Your task to perform on an android device: Open calendar and show me the third week of next month Image 0: 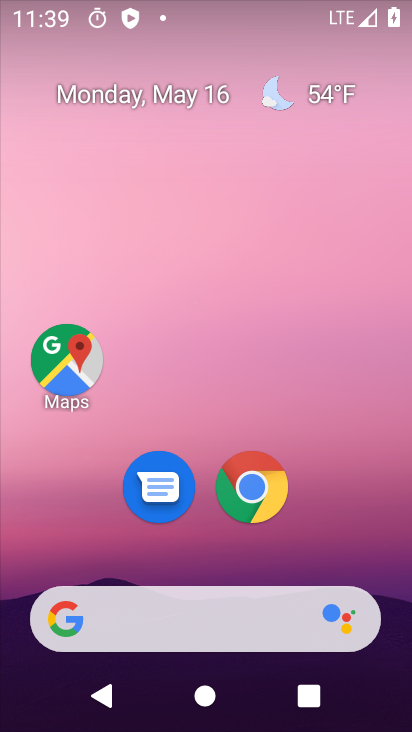
Step 0: drag from (179, 549) to (238, 73)
Your task to perform on an android device: Open calendar and show me the third week of next month Image 1: 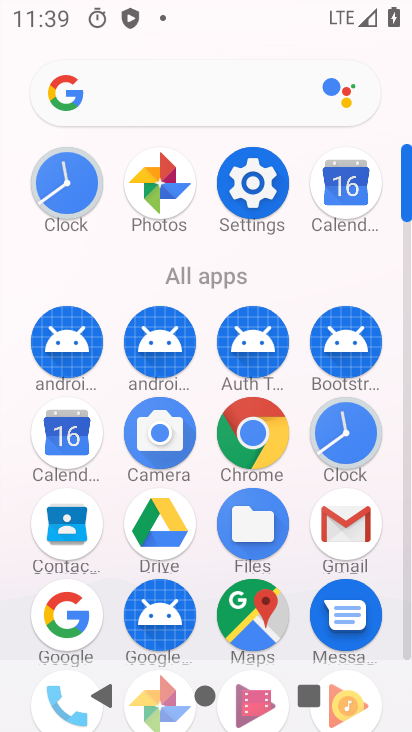
Step 1: click (61, 445)
Your task to perform on an android device: Open calendar and show me the third week of next month Image 2: 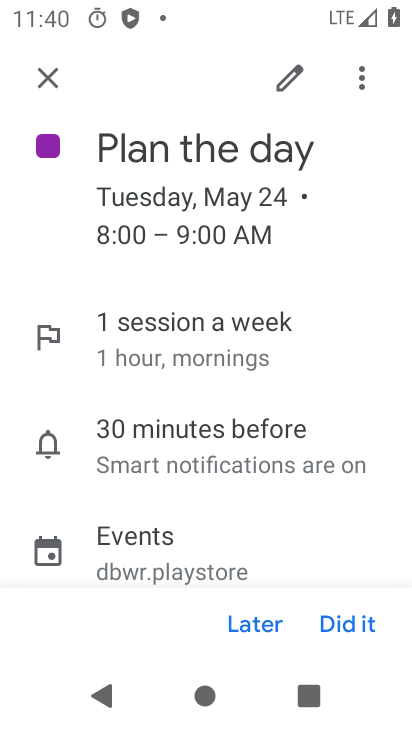
Step 2: click (44, 72)
Your task to perform on an android device: Open calendar and show me the third week of next month Image 3: 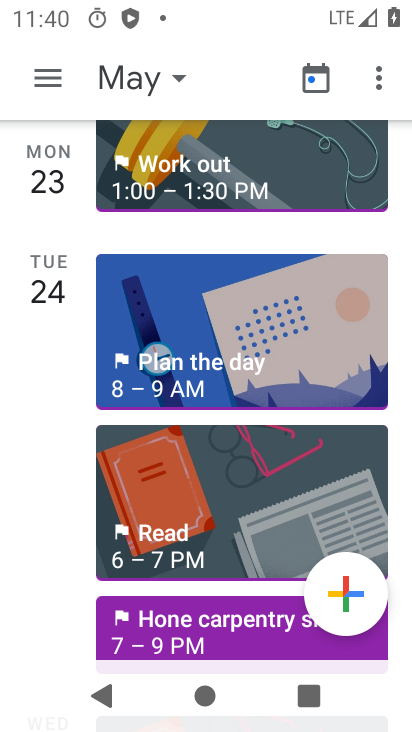
Step 3: click (168, 74)
Your task to perform on an android device: Open calendar and show me the third week of next month Image 4: 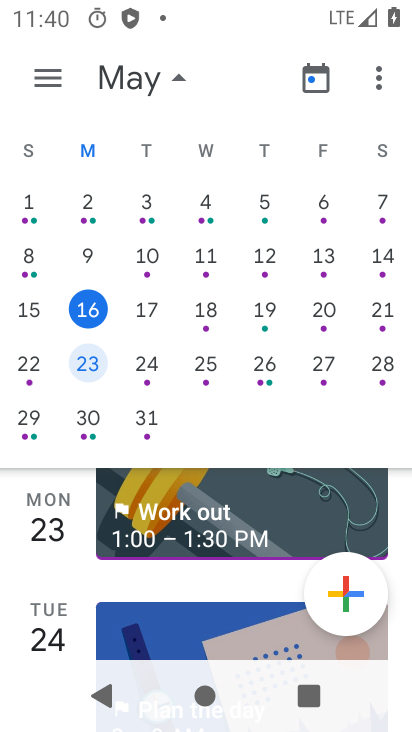
Step 4: drag from (347, 252) to (24, 227)
Your task to perform on an android device: Open calendar and show me the third week of next month Image 5: 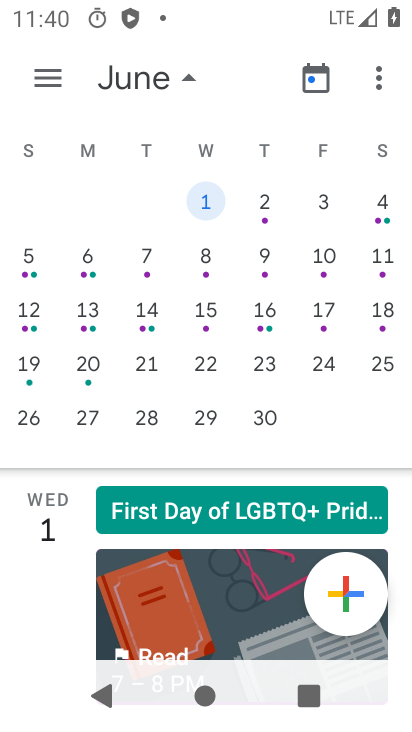
Step 5: click (87, 312)
Your task to perform on an android device: Open calendar and show me the third week of next month Image 6: 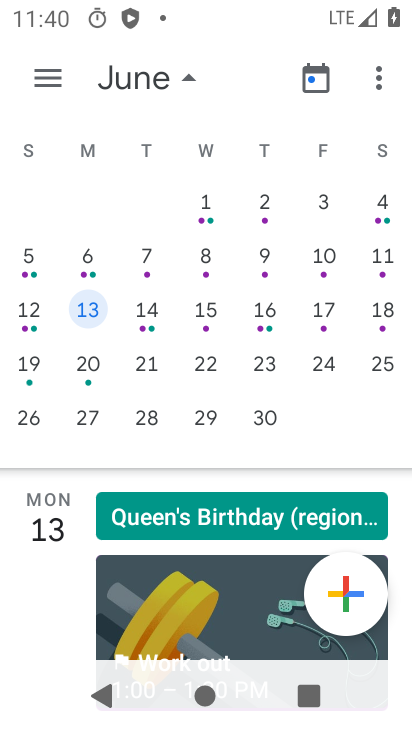
Step 6: task complete